Your task to perform on an android device: Open Google Maps Image 0: 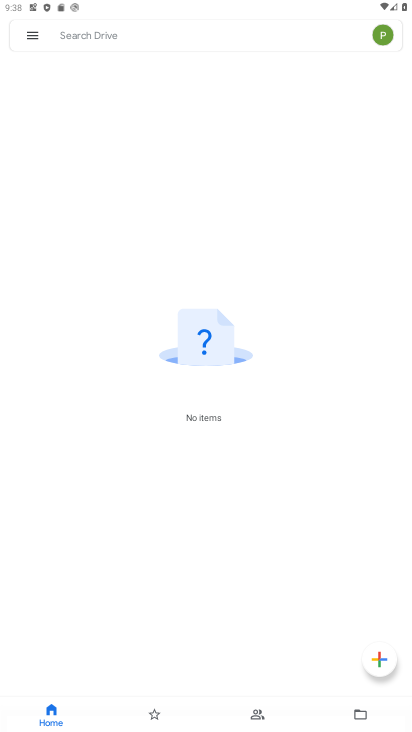
Step 0: press home button
Your task to perform on an android device: Open Google Maps Image 1: 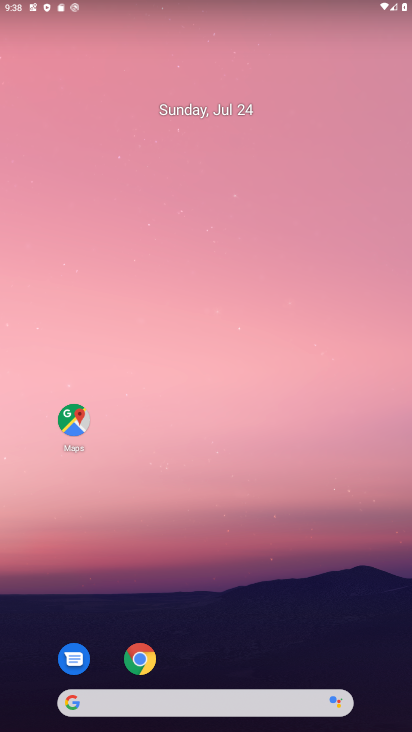
Step 1: click (74, 422)
Your task to perform on an android device: Open Google Maps Image 2: 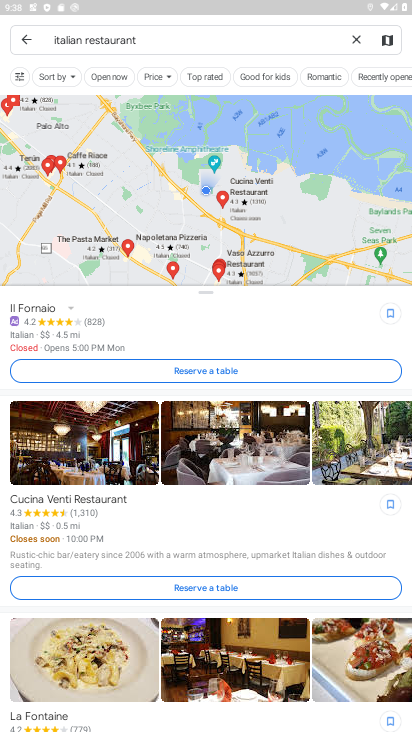
Step 2: task complete